Your task to perform on an android device: search for starred emails in the gmail app Image 0: 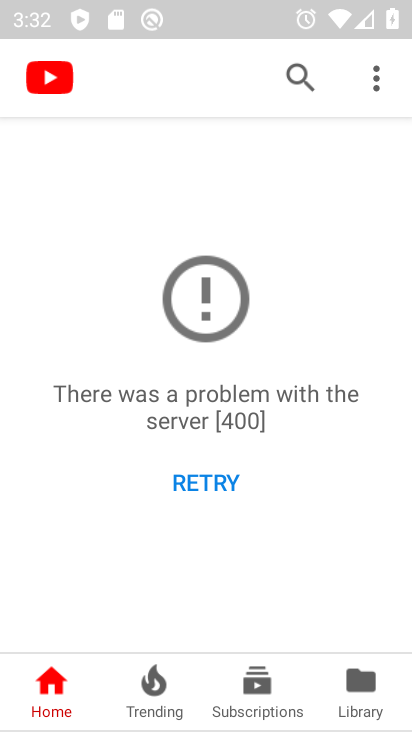
Step 0: press back button
Your task to perform on an android device: search for starred emails in the gmail app Image 1: 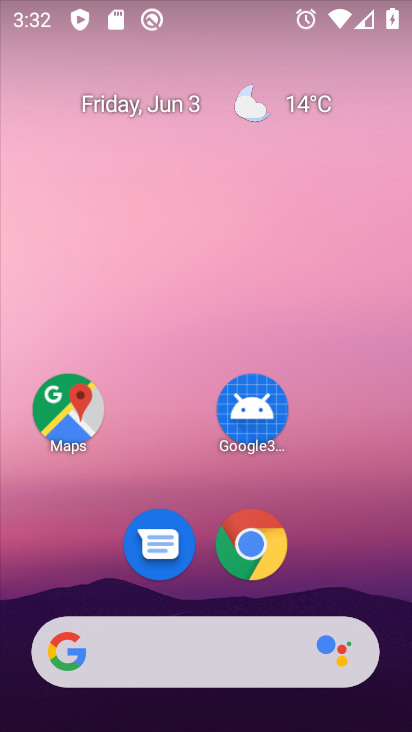
Step 1: drag from (91, 617) to (210, 123)
Your task to perform on an android device: search for starred emails in the gmail app Image 2: 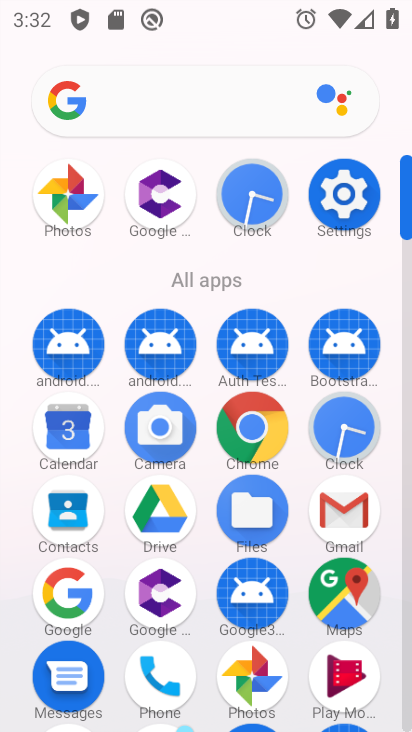
Step 2: click (342, 520)
Your task to perform on an android device: search for starred emails in the gmail app Image 3: 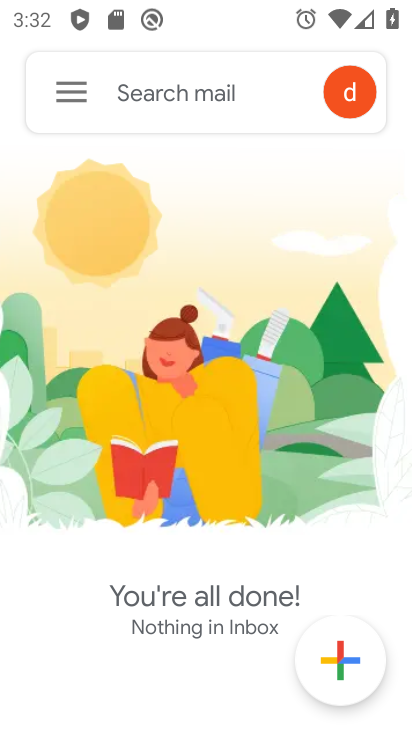
Step 3: click (93, 97)
Your task to perform on an android device: search for starred emails in the gmail app Image 4: 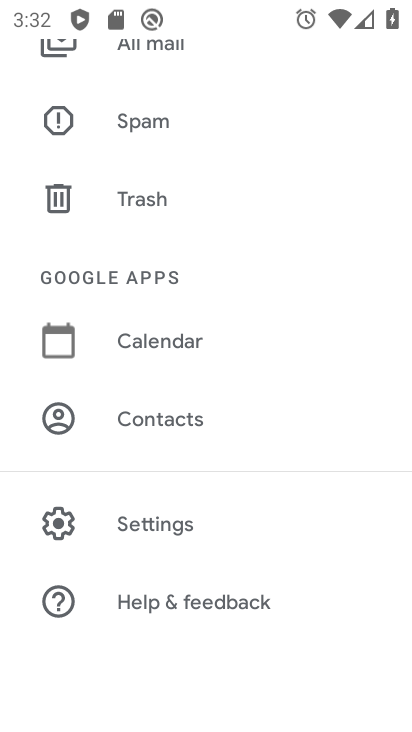
Step 4: drag from (170, 178) to (118, 674)
Your task to perform on an android device: search for starred emails in the gmail app Image 5: 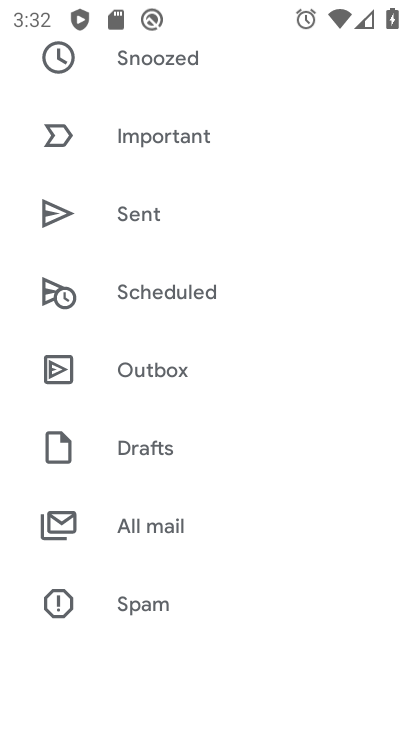
Step 5: drag from (206, 82) to (122, 457)
Your task to perform on an android device: search for starred emails in the gmail app Image 6: 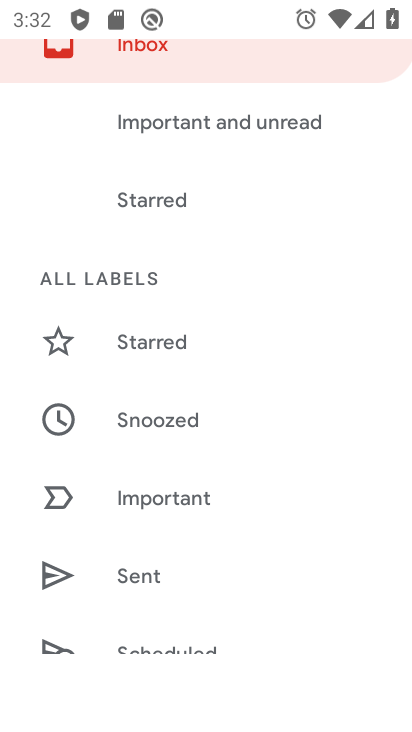
Step 6: click (181, 350)
Your task to perform on an android device: search for starred emails in the gmail app Image 7: 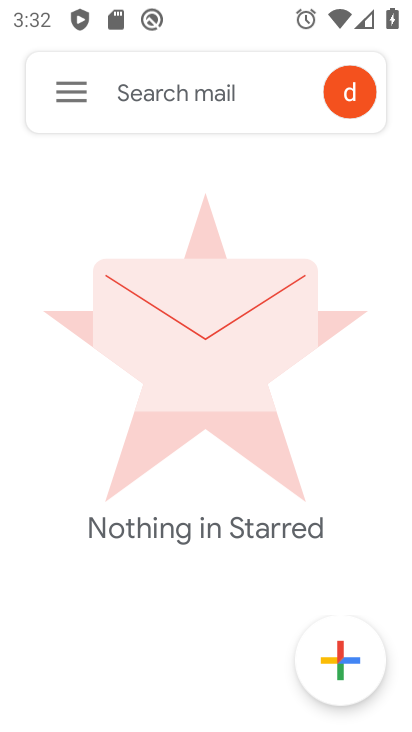
Step 7: task complete